Your task to perform on an android device: Search for Italian restaurants on Maps Image 0: 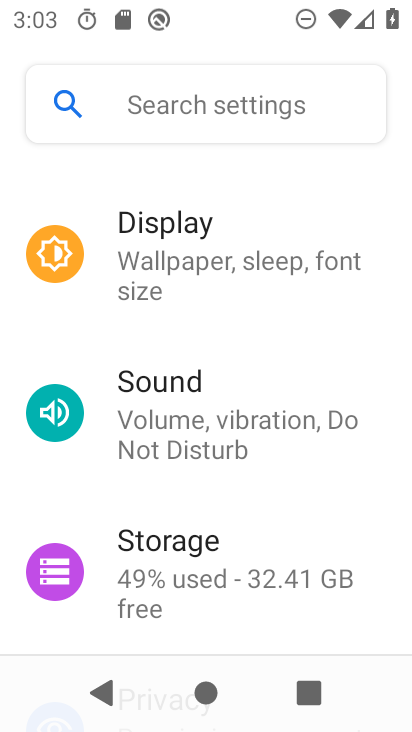
Step 0: press home button
Your task to perform on an android device: Search for Italian restaurants on Maps Image 1: 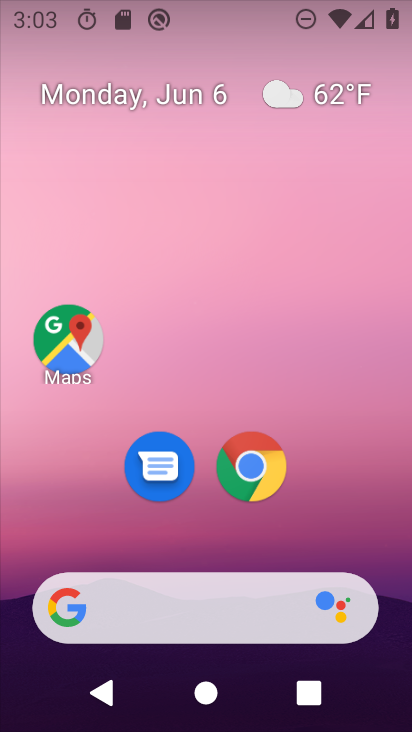
Step 1: drag from (209, 548) to (190, 67)
Your task to perform on an android device: Search for Italian restaurants on Maps Image 2: 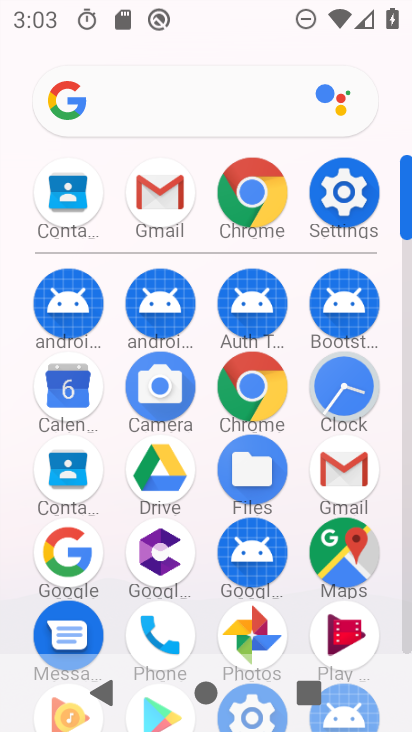
Step 2: click (347, 551)
Your task to perform on an android device: Search for Italian restaurants on Maps Image 3: 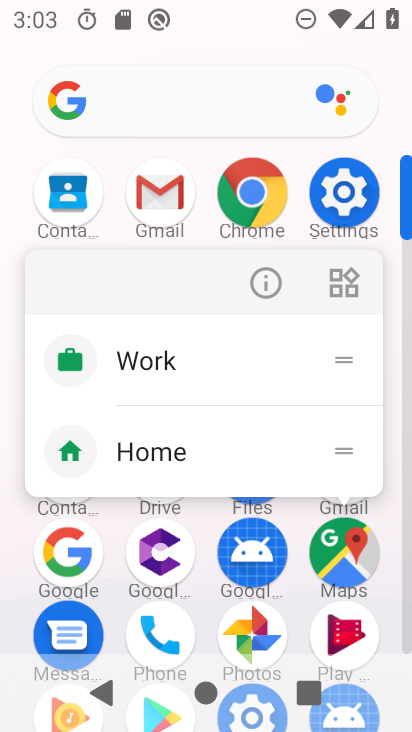
Step 3: click (348, 568)
Your task to perform on an android device: Search for Italian restaurants on Maps Image 4: 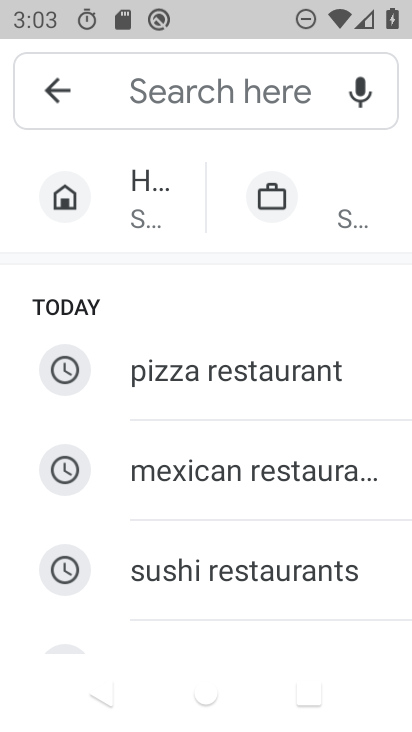
Step 4: task complete